Your task to perform on an android device: Open Amazon Image 0: 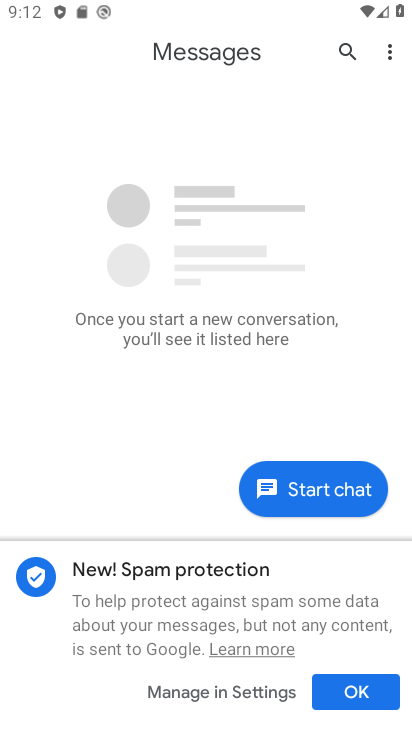
Step 0: press home button
Your task to perform on an android device: Open Amazon Image 1: 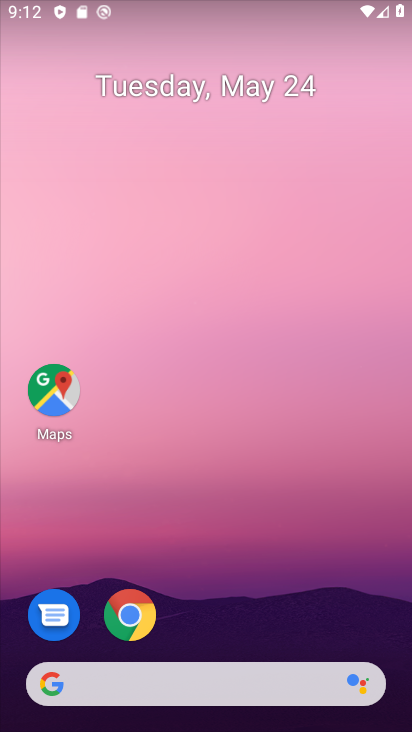
Step 1: click (137, 608)
Your task to perform on an android device: Open Amazon Image 2: 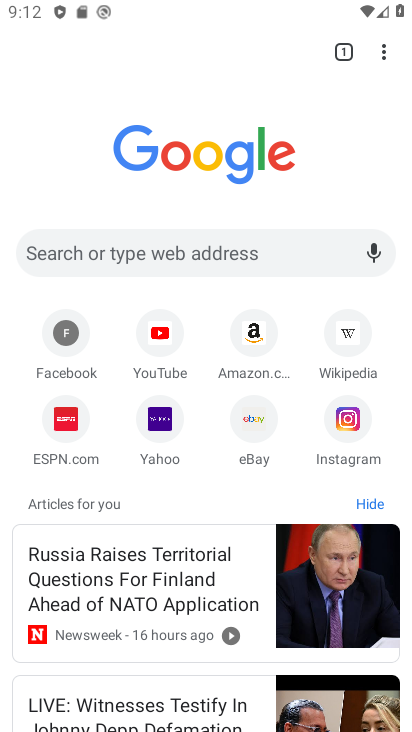
Step 2: click (245, 327)
Your task to perform on an android device: Open Amazon Image 3: 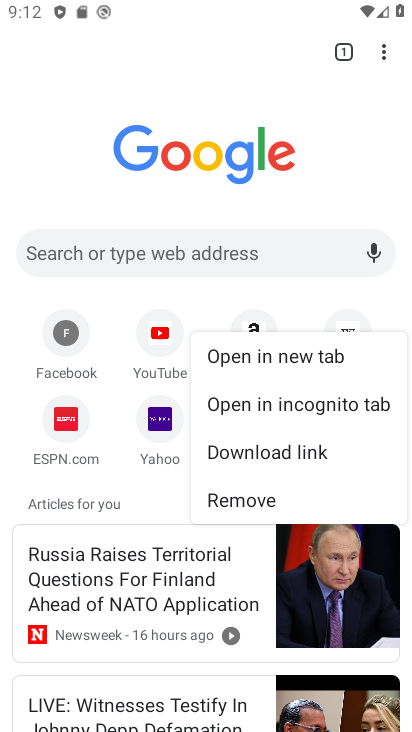
Step 3: click (254, 327)
Your task to perform on an android device: Open Amazon Image 4: 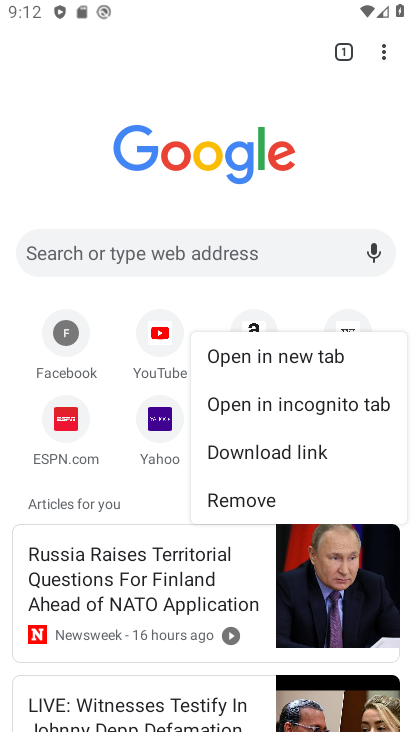
Step 4: click (257, 317)
Your task to perform on an android device: Open Amazon Image 5: 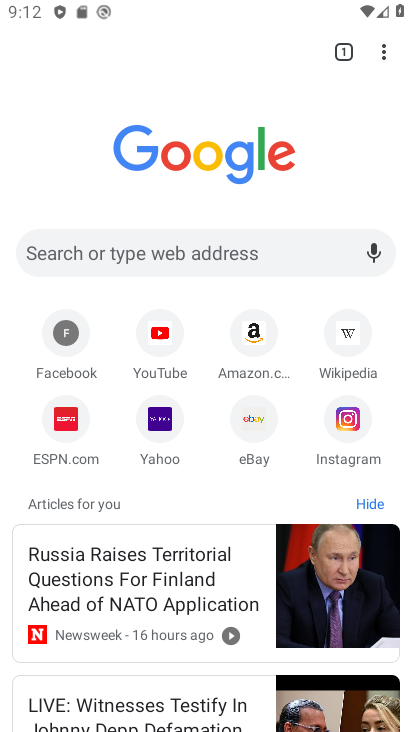
Step 5: click (249, 330)
Your task to perform on an android device: Open Amazon Image 6: 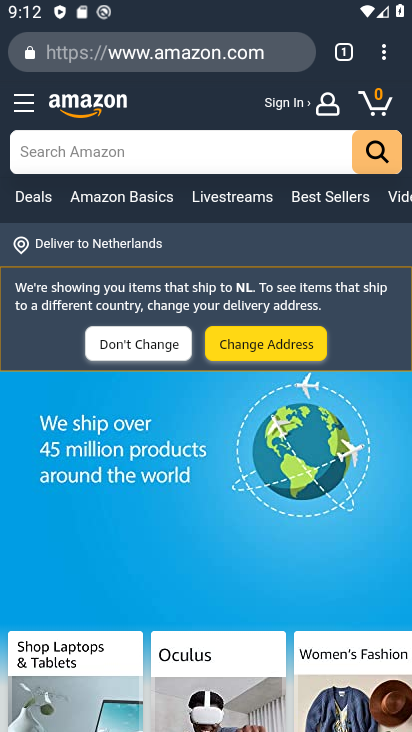
Step 6: task complete